Your task to perform on an android device: delete location history Image 0: 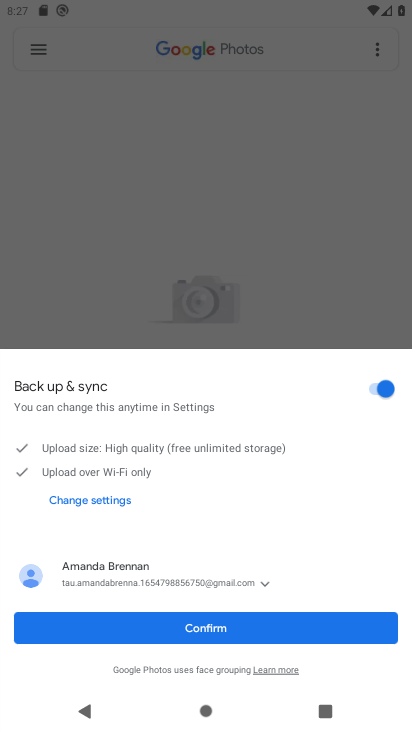
Step 0: press home button
Your task to perform on an android device: delete location history Image 1: 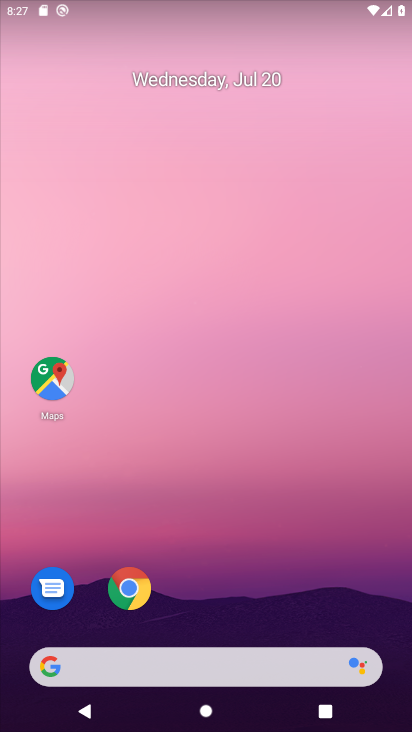
Step 1: click (50, 373)
Your task to perform on an android device: delete location history Image 2: 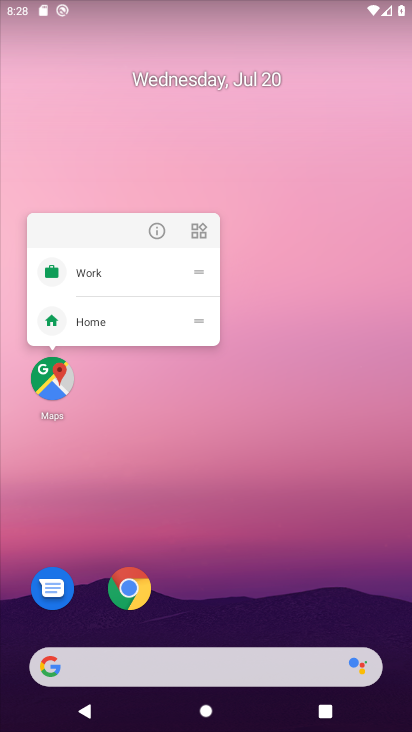
Step 2: click (49, 370)
Your task to perform on an android device: delete location history Image 3: 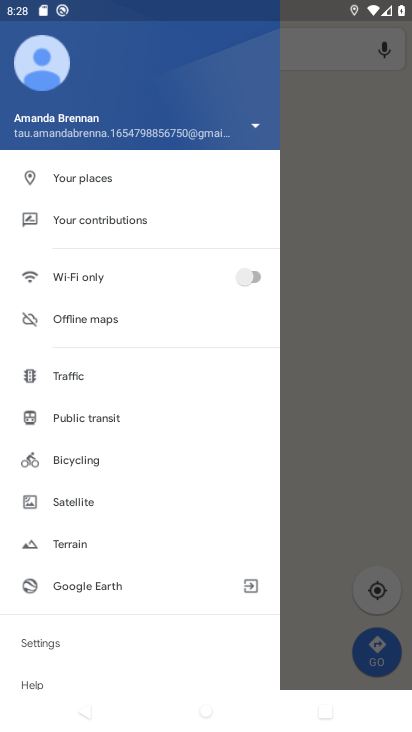
Step 3: task complete